Your task to perform on an android device: Open Google Chrome and open the bookmarks view Image 0: 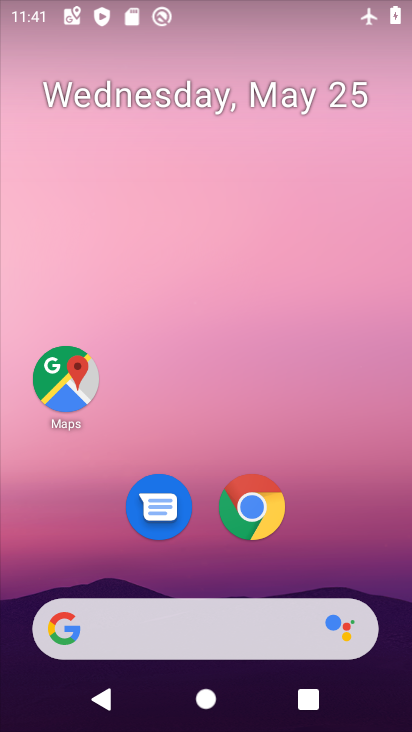
Step 0: click (253, 507)
Your task to perform on an android device: Open Google Chrome and open the bookmarks view Image 1: 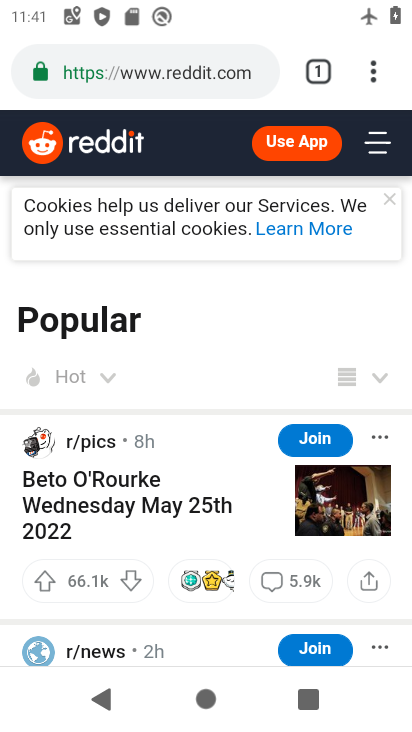
Step 1: click (375, 72)
Your task to perform on an android device: Open Google Chrome and open the bookmarks view Image 2: 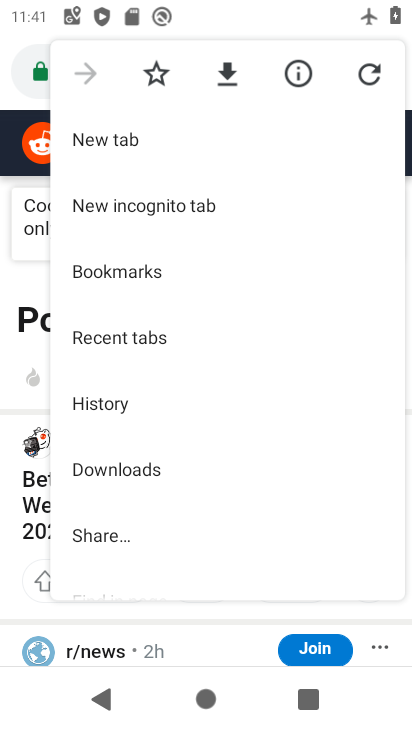
Step 2: click (127, 275)
Your task to perform on an android device: Open Google Chrome and open the bookmarks view Image 3: 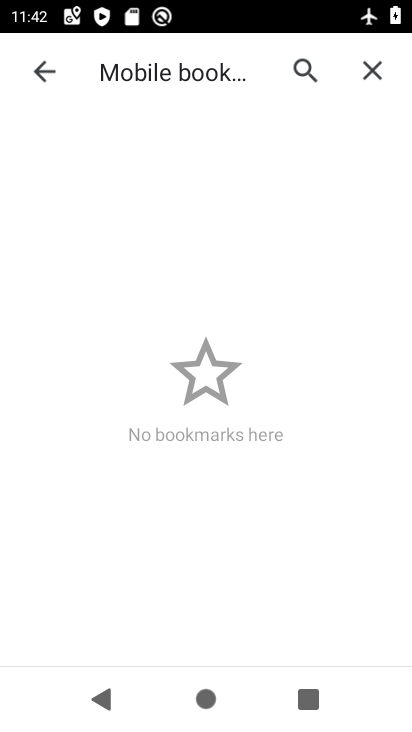
Step 3: task complete